Your task to perform on an android device: Do I have any events this weekend? Image 0: 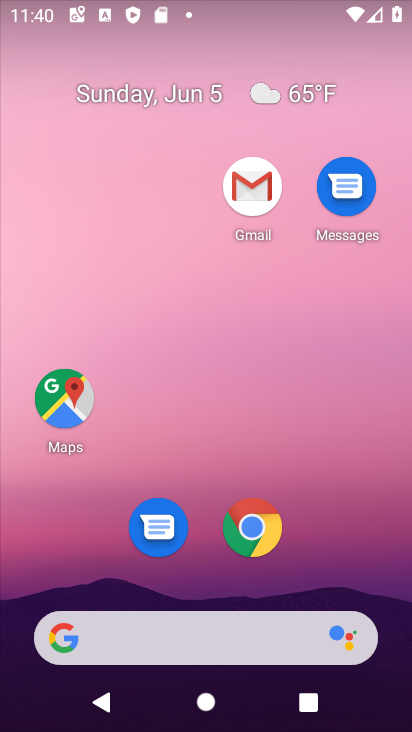
Step 0: drag from (366, 452) to (367, 76)
Your task to perform on an android device: Do I have any events this weekend? Image 1: 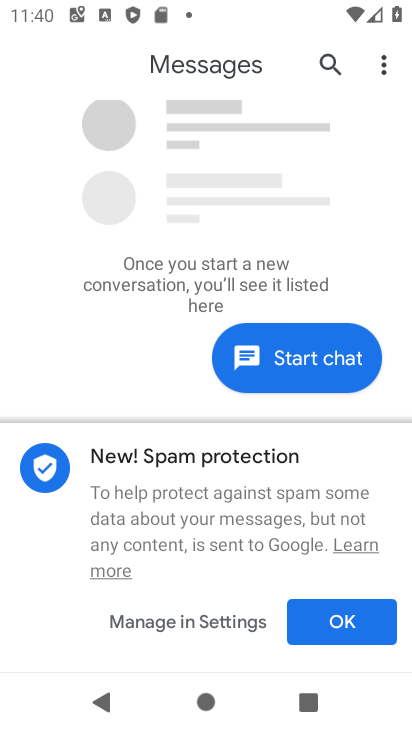
Step 1: press home button
Your task to perform on an android device: Do I have any events this weekend? Image 2: 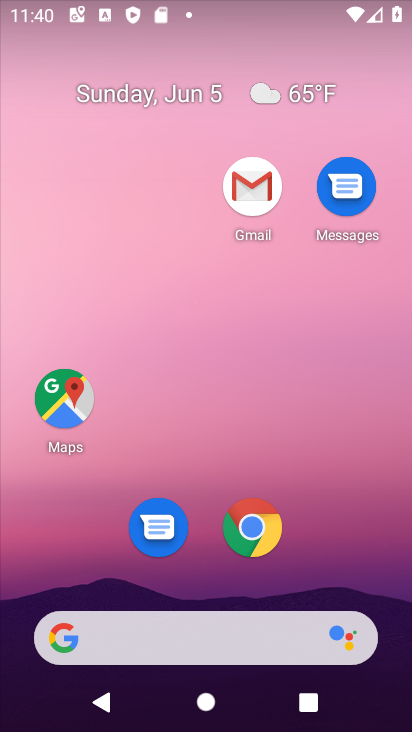
Step 2: drag from (386, 538) to (380, 94)
Your task to perform on an android device: Do I have any events this weekend? Image 3: 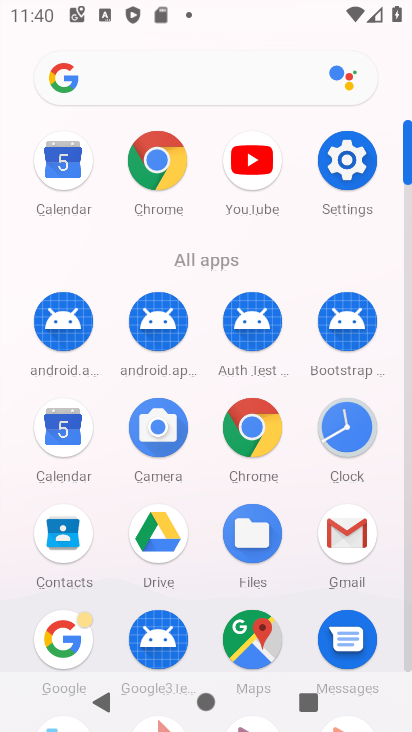
Step 3: click (340, 169)
Your task to perform on an android device: Do I have any events this weekend? Image 4: 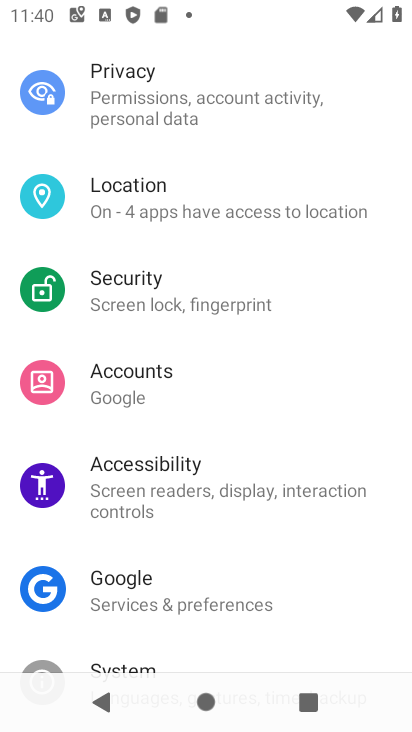
Step 4: press home button
Your task to perform on an android device: Do I have any events this weekend? Image 5: 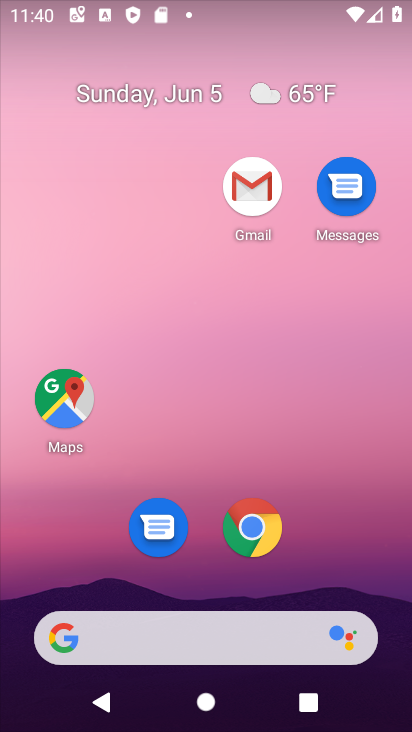
Step 5: drag from (346, 382) to (386, 66)
Your task to perform on an android device: Do I have any events this weekend? Image 6: 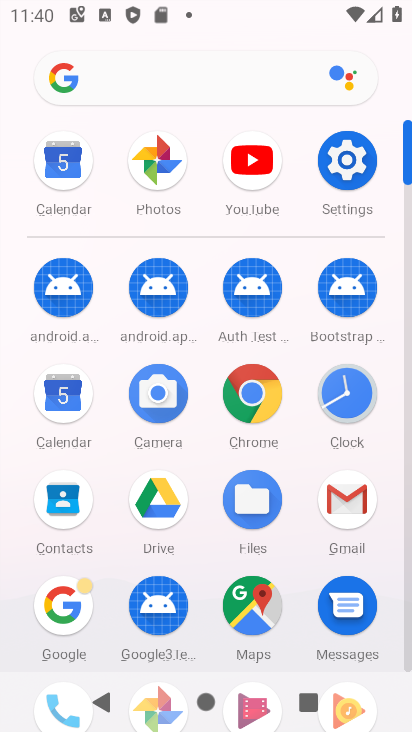
Step 6: click (40, 160)
Your task to perform on an android device: Do I have any events this weekend? Image 7: 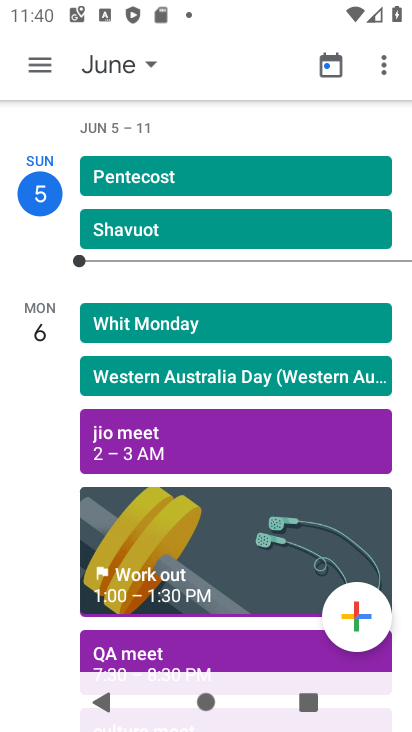
Step 7: task complete